Your task to perform on an android device: install app "ZOOM Cloud Meetings" Image 0: 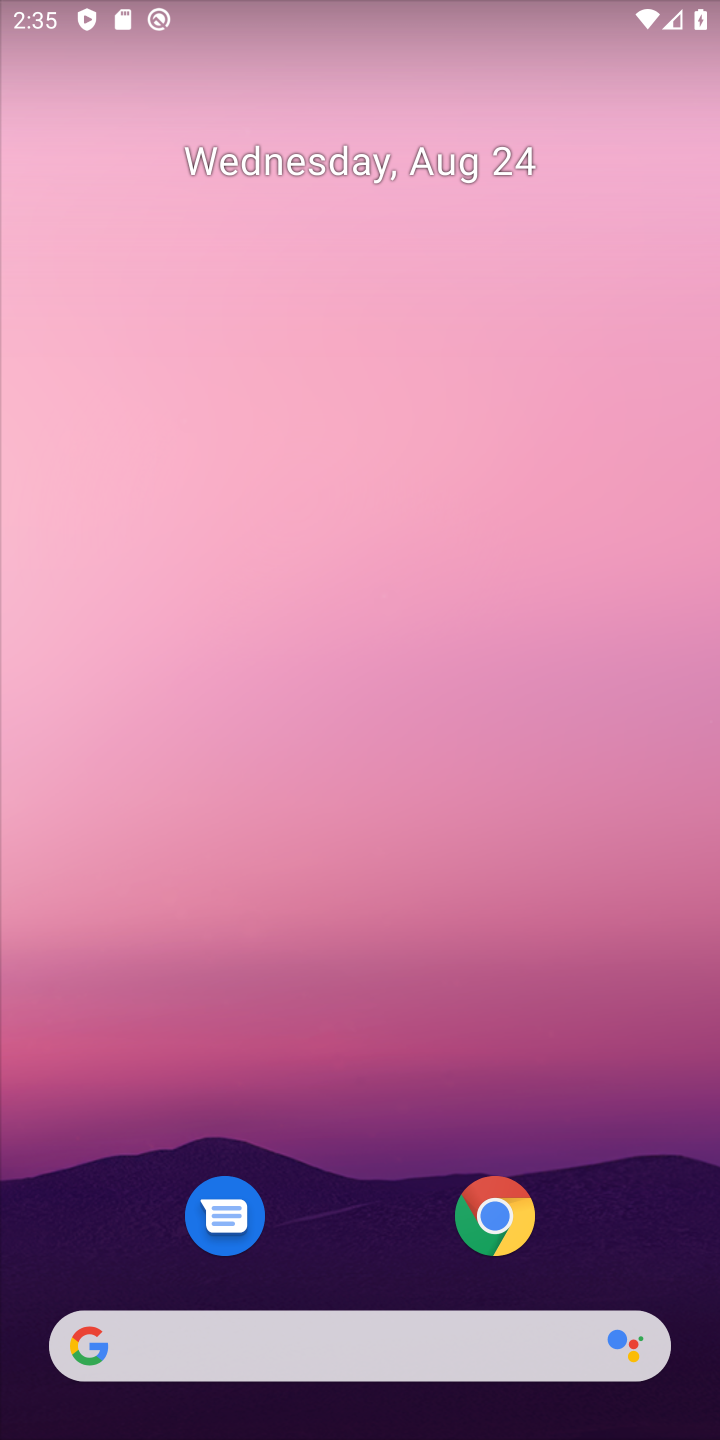
Step 0: press home button
Your task to perform on an android device: install app "ZOOM Cloud Meetings" Image 1: 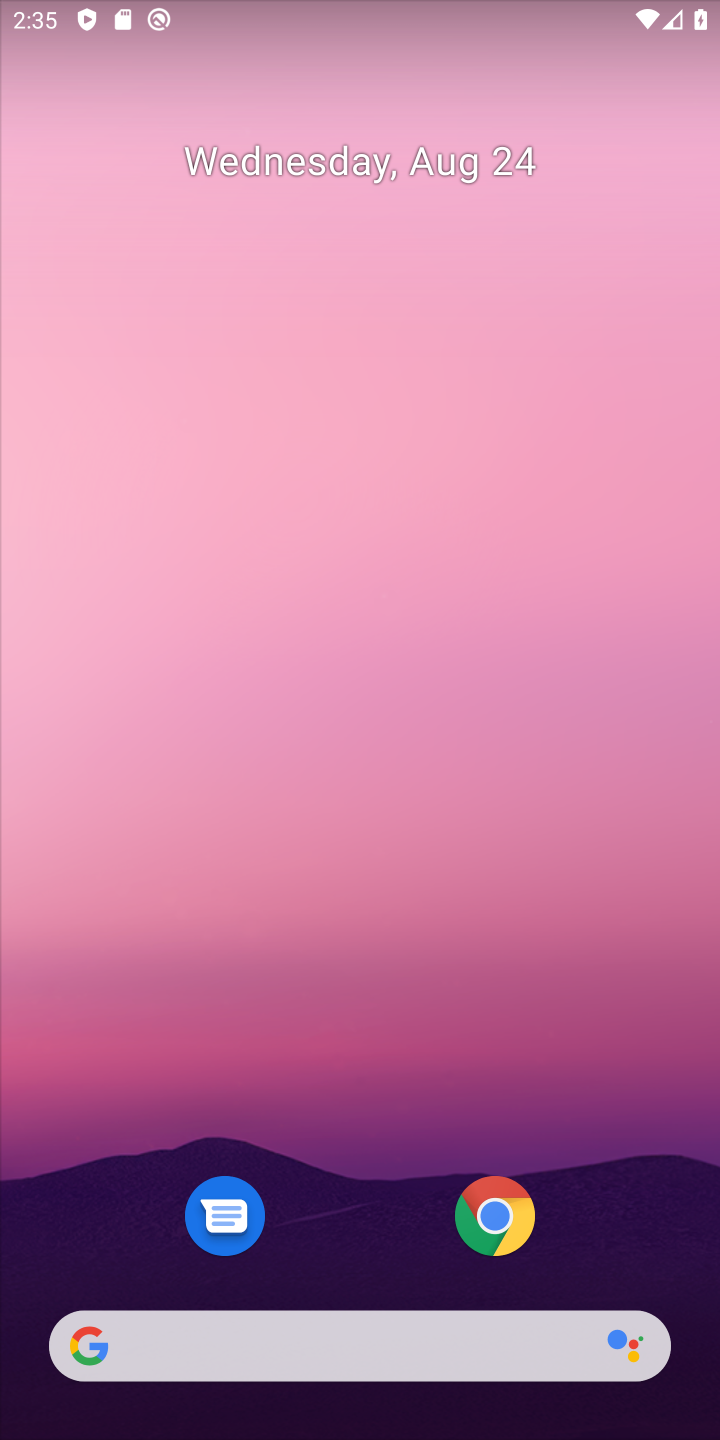
Step 1: drag from (629, 1045) to (598, 116)
Your task to perform on an android device: install app "ZOOM Cloud Meetings" Image 2: 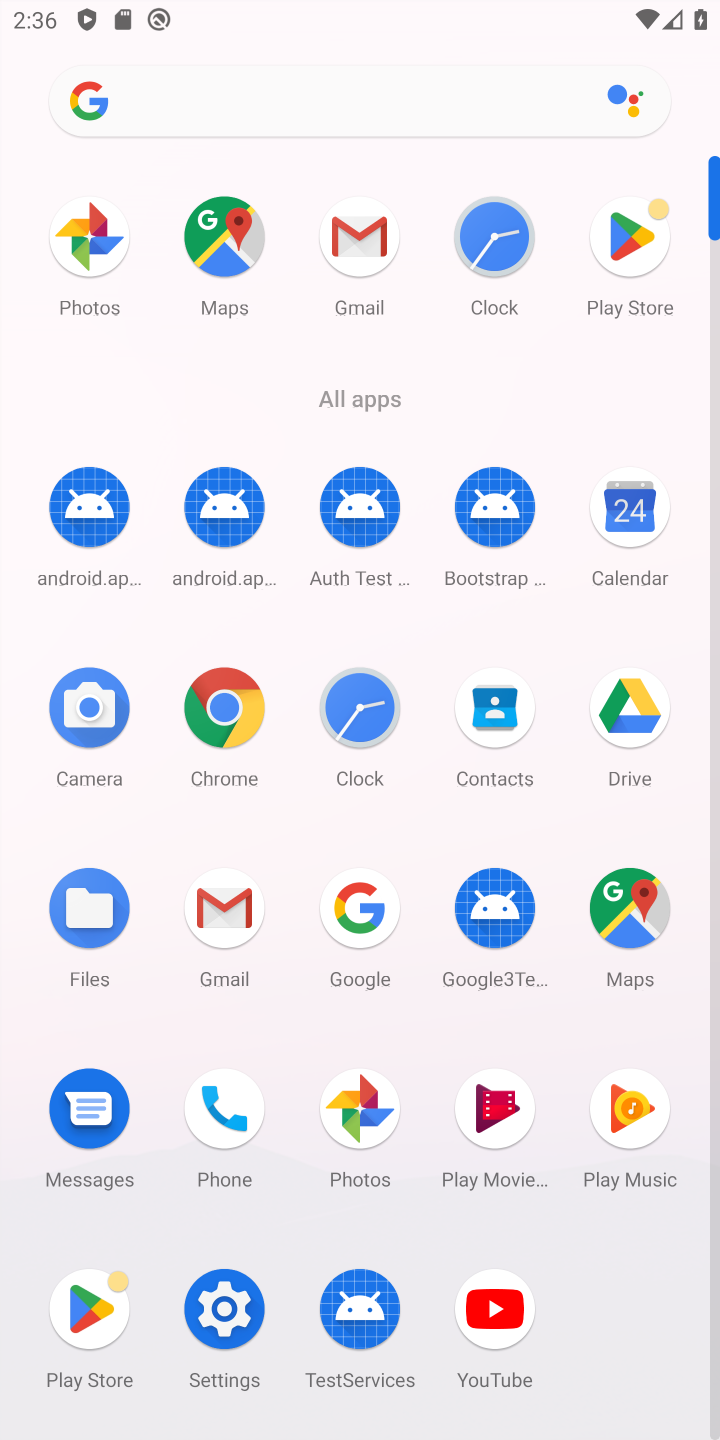
Step 2: click (643, 242)
Your task to perform on an android device: install app "ZOOM Cloud Meetings" Image 3: 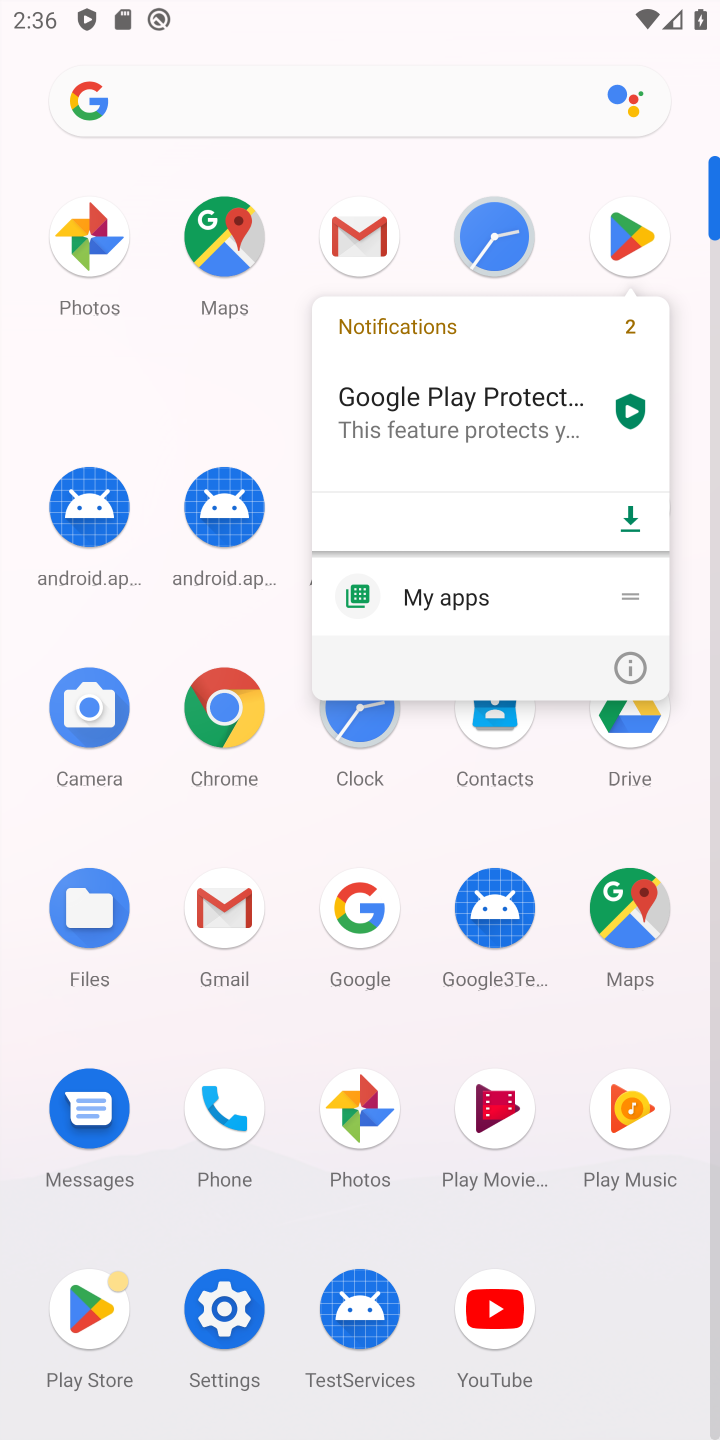
Step 3: click (643, 242)
Your task to perform on an android device: install app "ZOOM Cloud Meetings" Image 4: 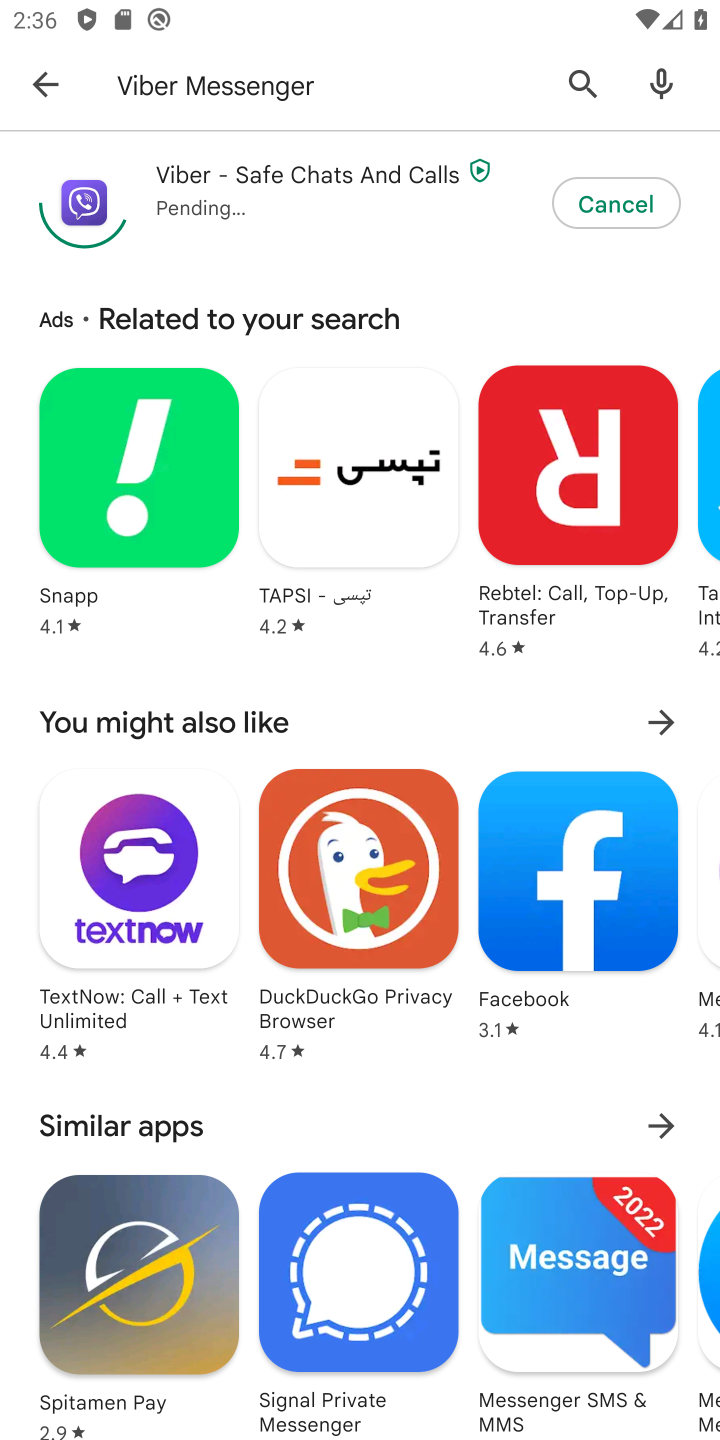
Step 4: press back button
Your task to perform on an android device: install app "ZOOM Cloud Meetings" Image 5: 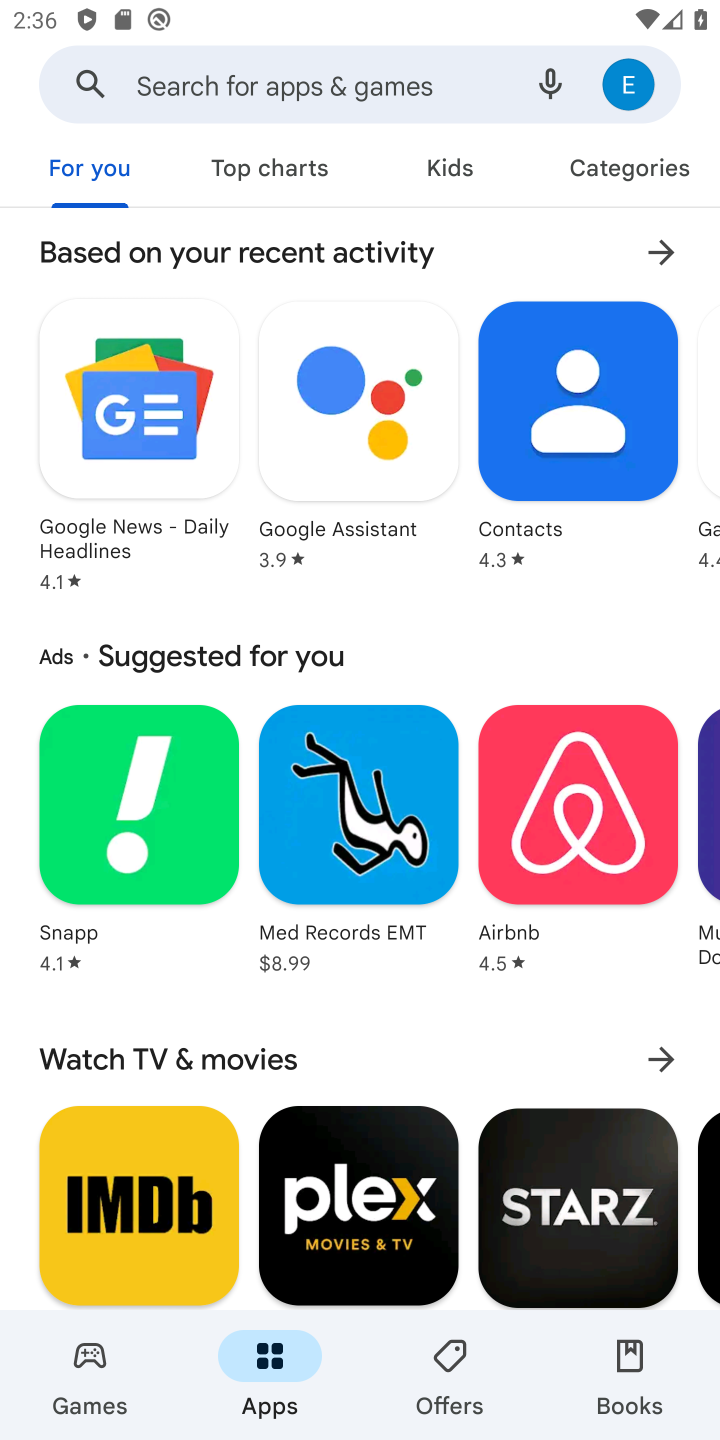
Step 5: click (248, 88)
Your task to perform on an android device: install app "ZOOM Cloud Meetings" Image 6: 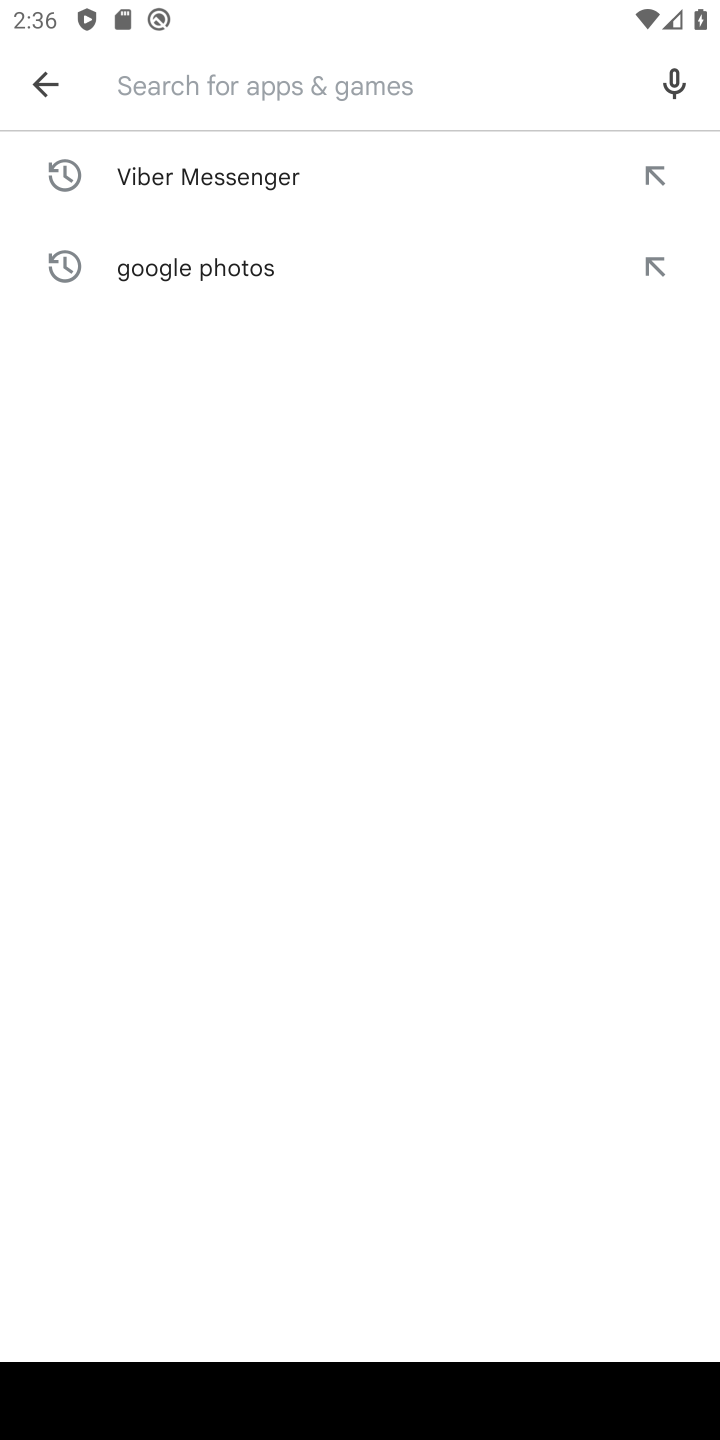
Step 6: press enter
Your task to perform on an android device: install app "ZOOM Cloud Meetings" Image 7: 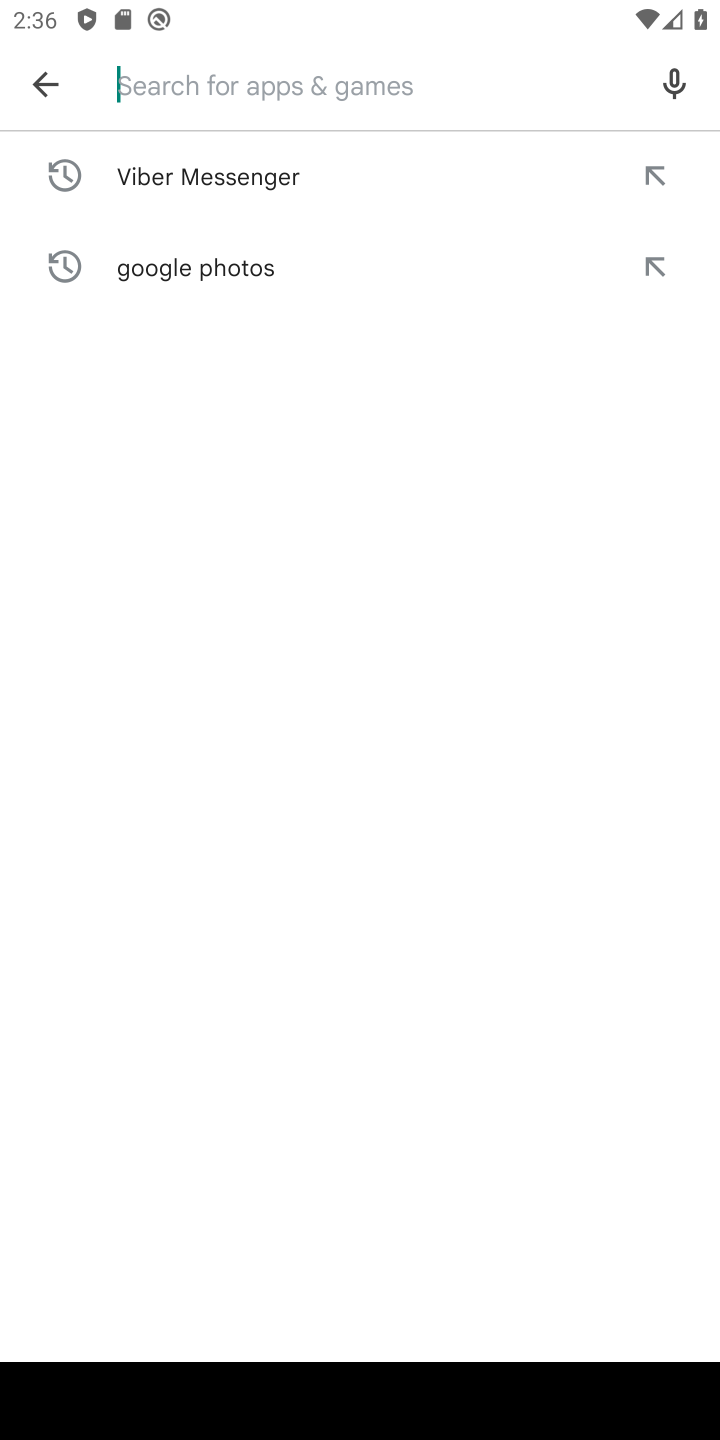
Step 7: type "ZOOM Cloud Meetings"
Your task to perform on an android device: install app "ZOOM Cloud Meetings" Image 8: 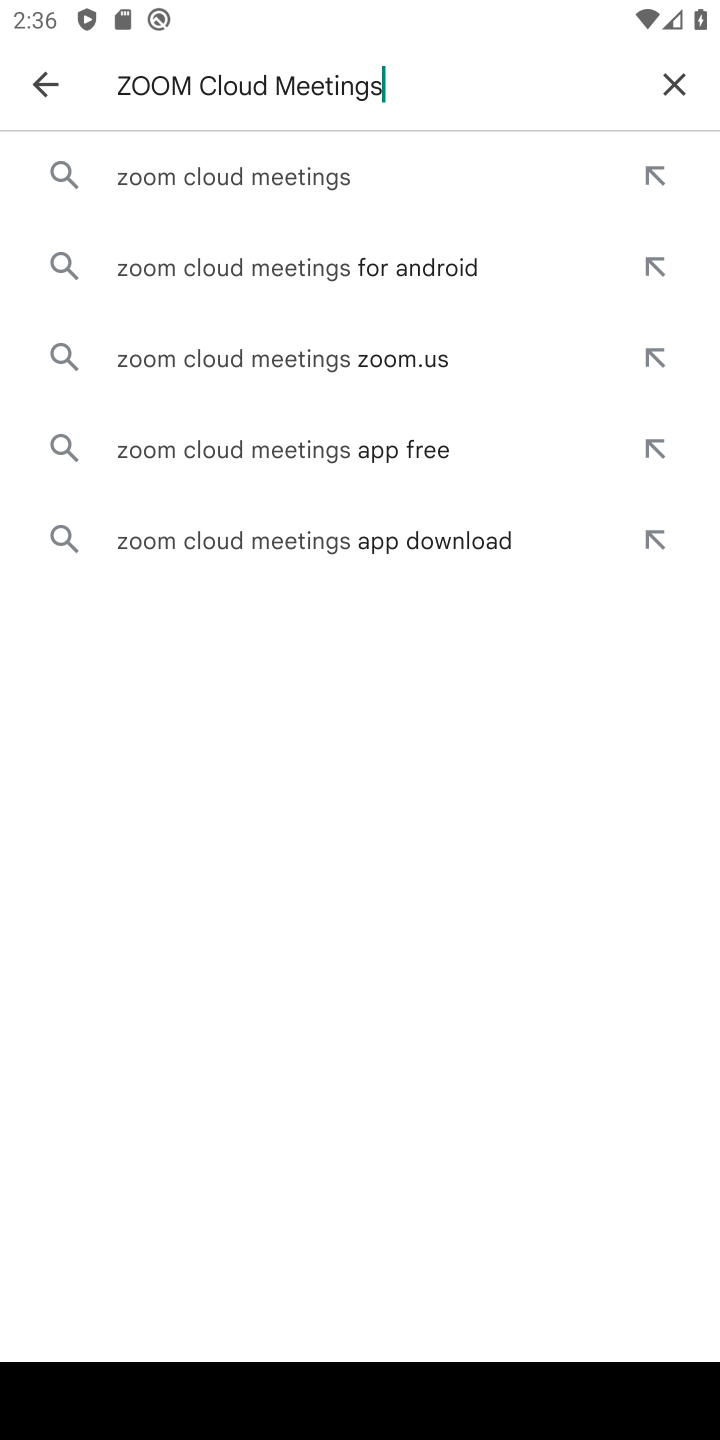
Step 8: click (308, 184)
Your task to perform on an android device: install app "ZOOM Cloud Meetings" Image 9: 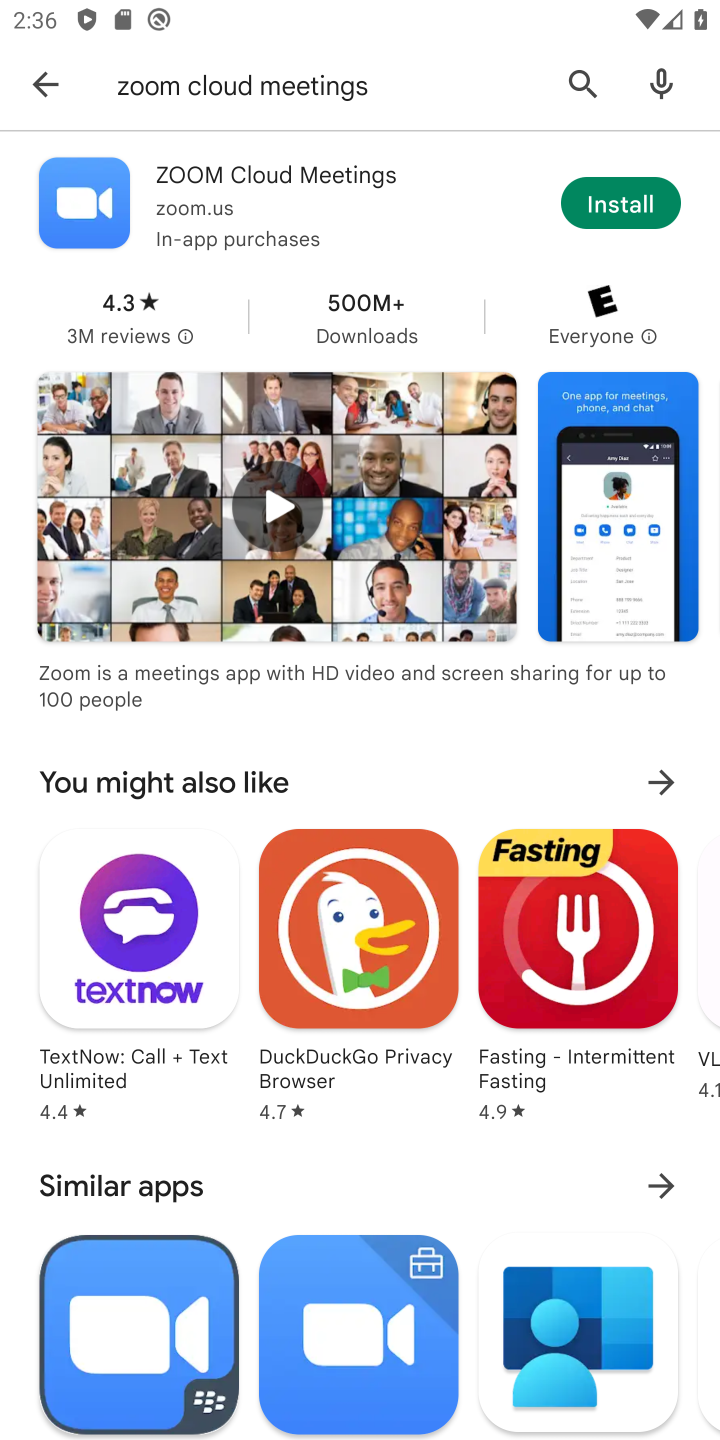
Step 9: click (617, 204)
Your task to perform on an android device: install app "ZOOM Cloud Meetings" Image 10: 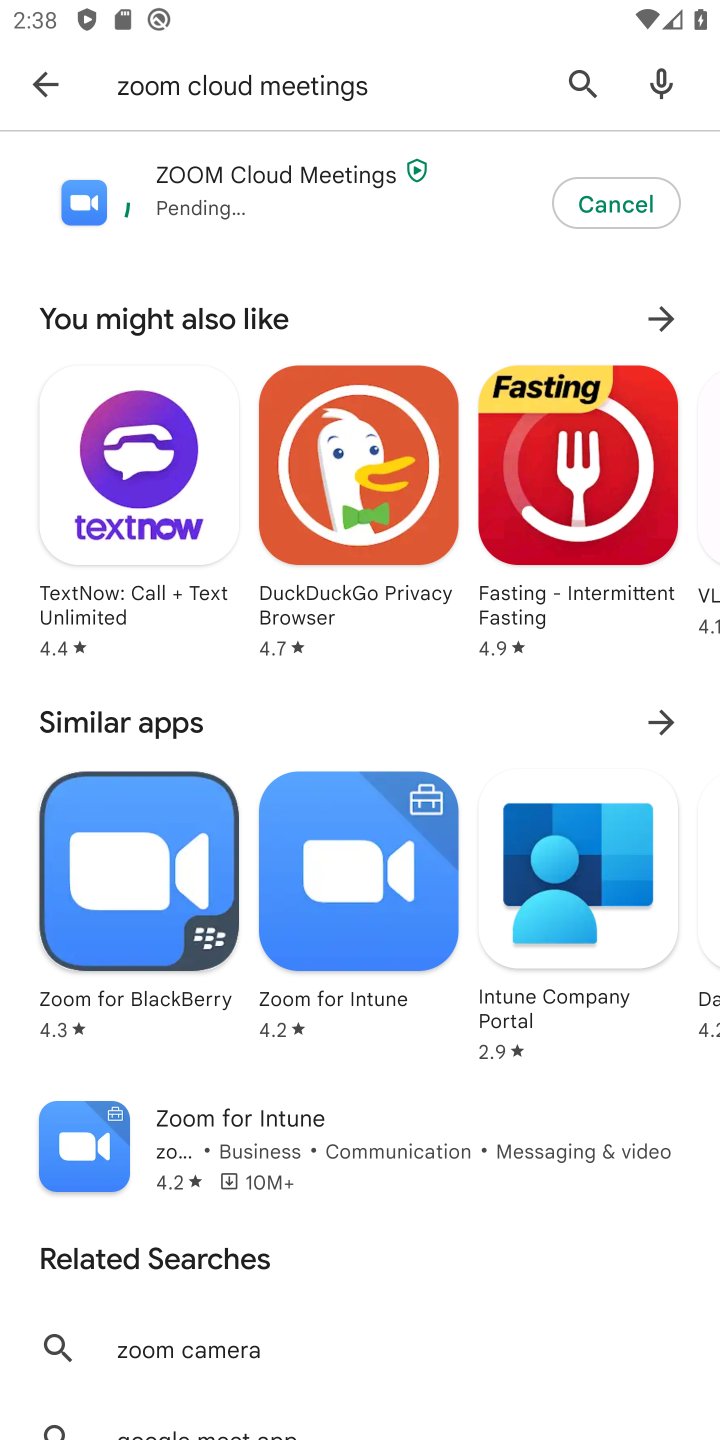
Step 10: task complete